Your task to perform on an android device: refresh tabs in the chrome app Image 0: 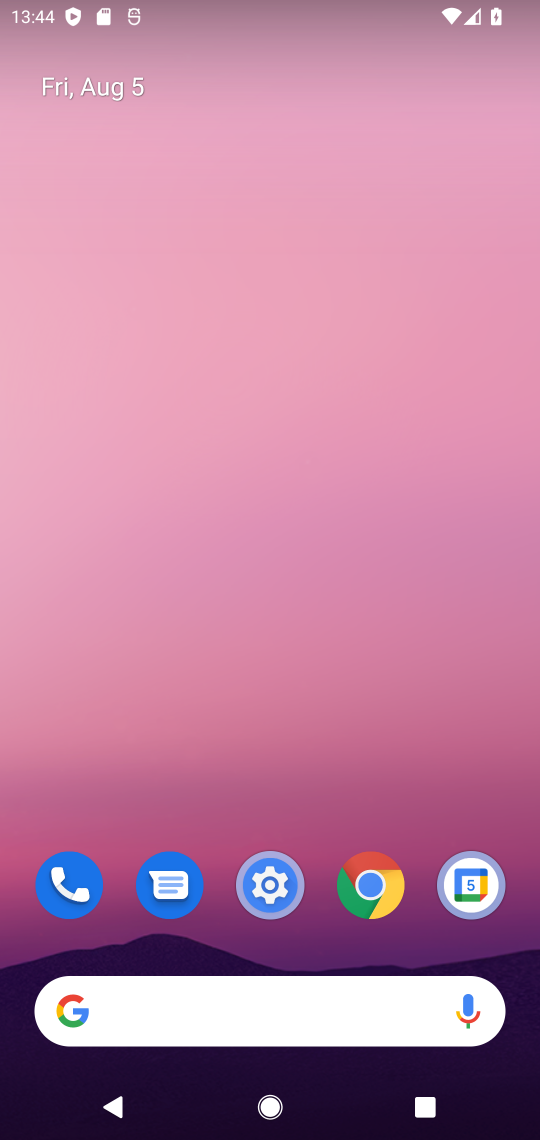
Step 0: click (380, 890)
Your task to perform on an android device: refresh tabs in the chrome app Image 1: 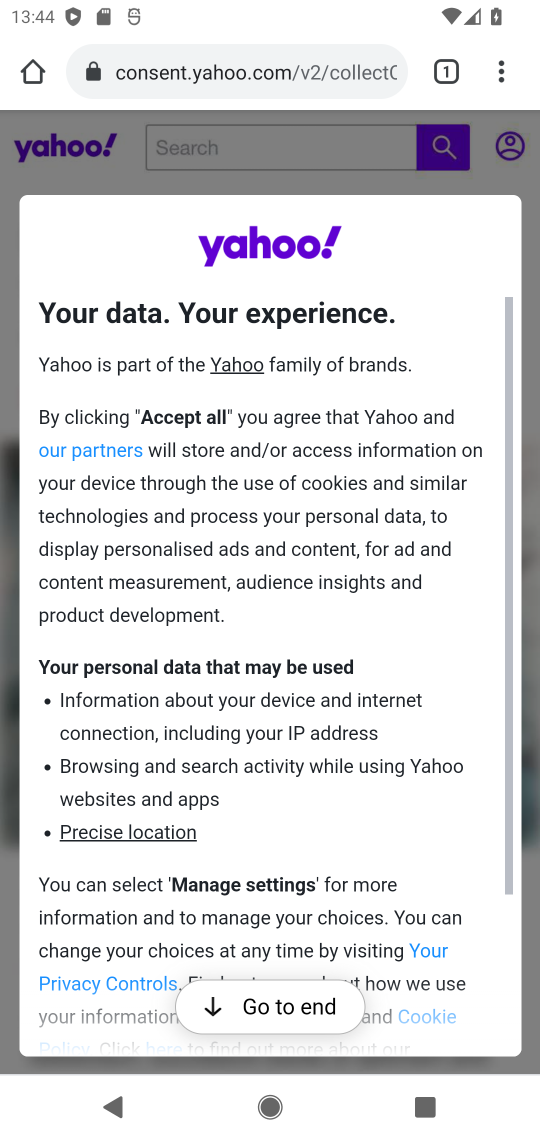
Step 1: click (504, 79)
Your task to perform on an android device: refresh tabs in the chrome app Image 2: 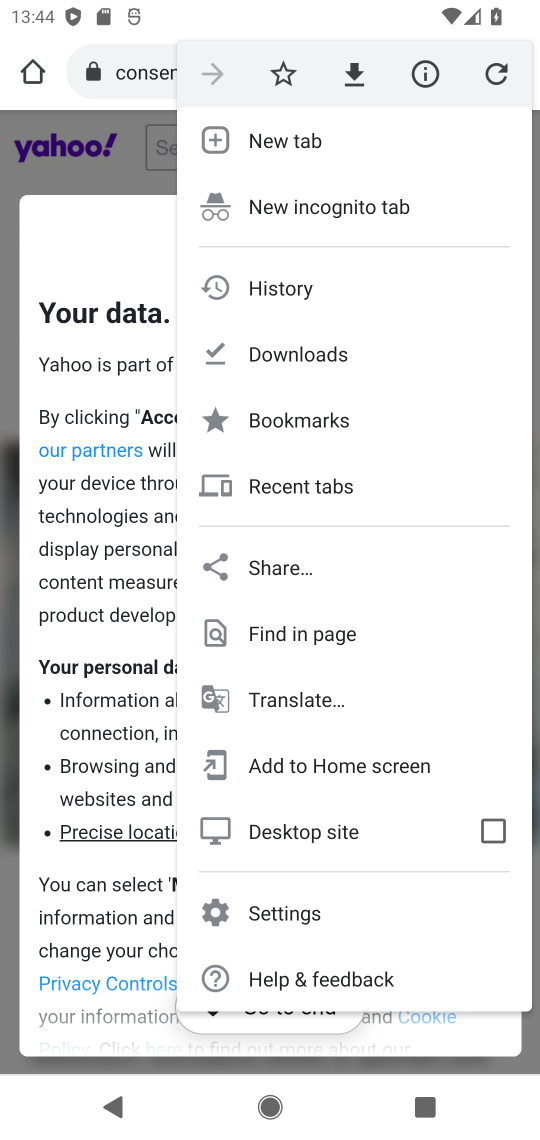
Step 2: click (500, 79)
Your task to perform on an android device: refresh tabs in the chrome app Image 3: 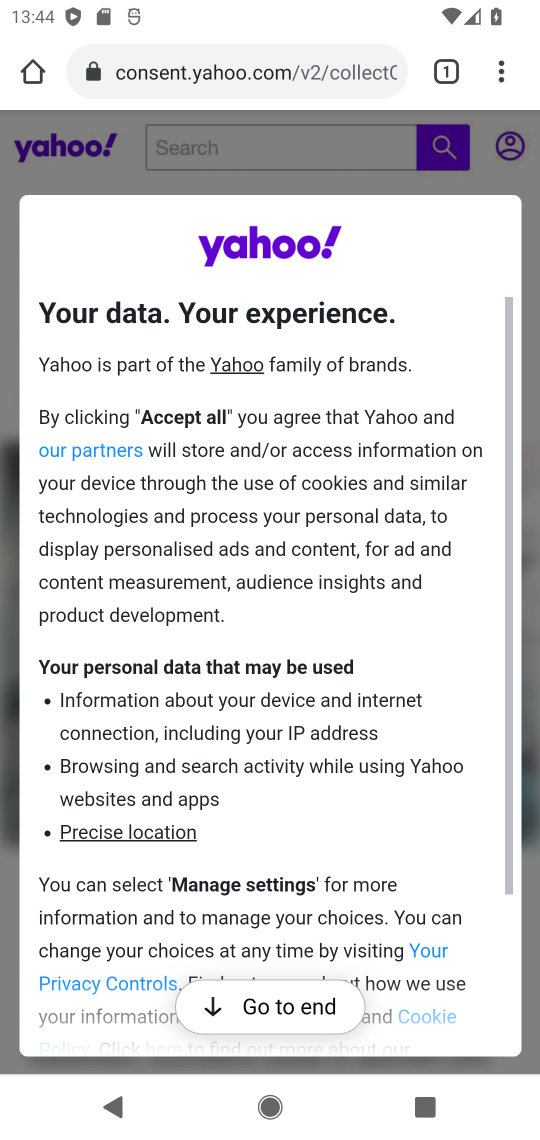
Step 3: task complete